Your task to perform on an android device: What's on my calendar today? Image 0: 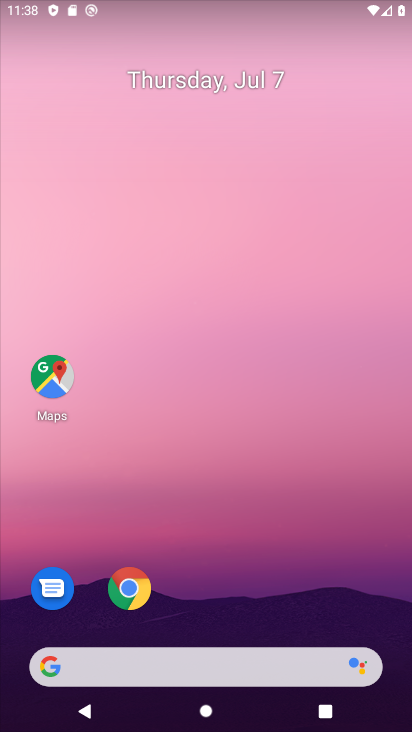
Step 0: drag from (211, 645) to (341, 134)
Your task to perform on an android device: What's on my calendar today? Image 1: 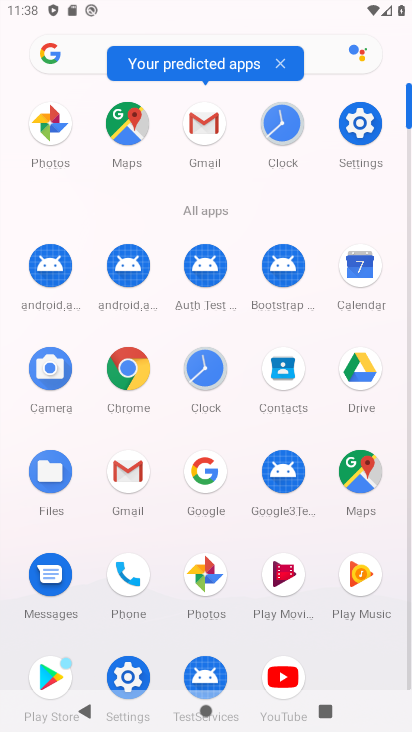
Step 1: click (360, 283)
Your task to perform on an android device: What's on my calendar today? Image 2: 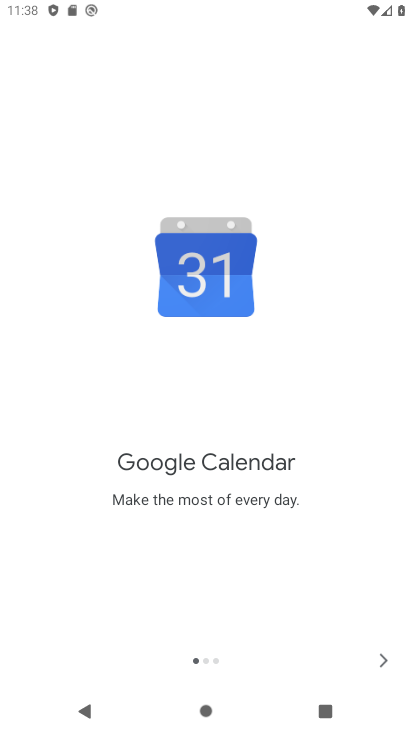
Step 2: click (384, 660)
Your task to perform on an android device: What's on my calendar today? Image 3: 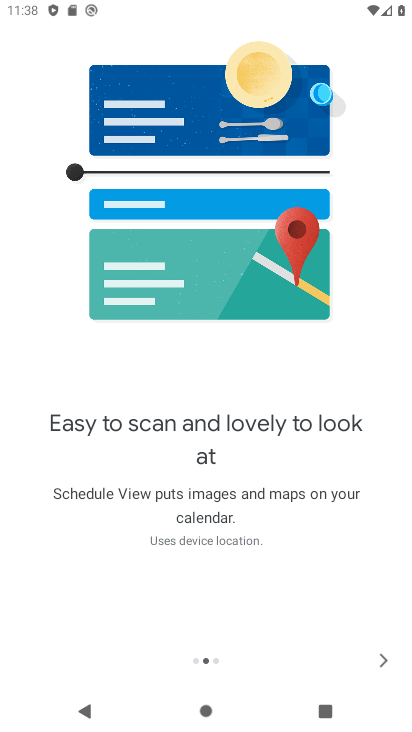
Step 3: click (384, 660)
Your task to perform on an android device: What's on my calendar today? Image 4: 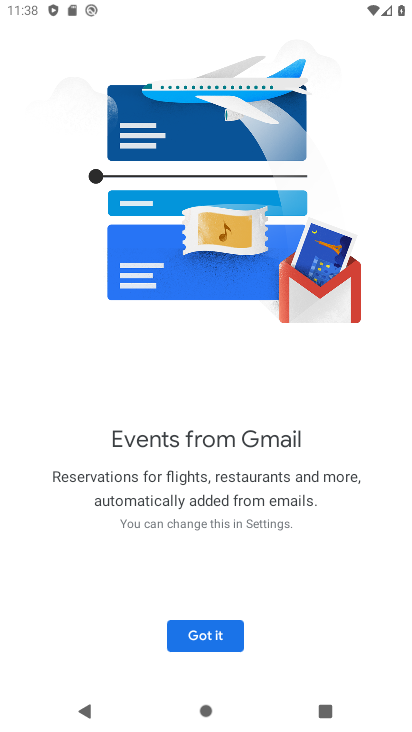
Step 4: click (213, 635)
Your task to perform on an android device: What's on my calendar today? Image 5: 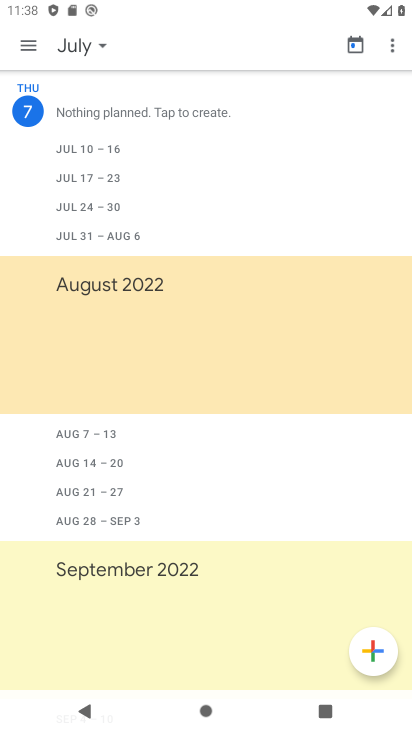
Step 5: task complete